Your task to perform on an android device: change timer sound Image 0: 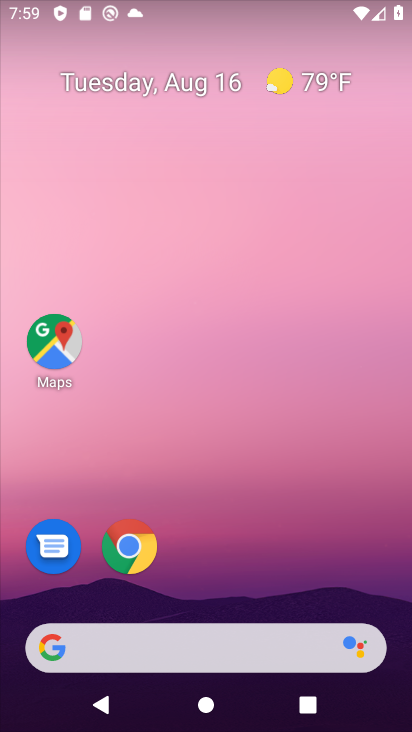
Step 0: drag from (208, 599) to (177, 1)
Your task to perform on an android device: change timer sound Image 1: 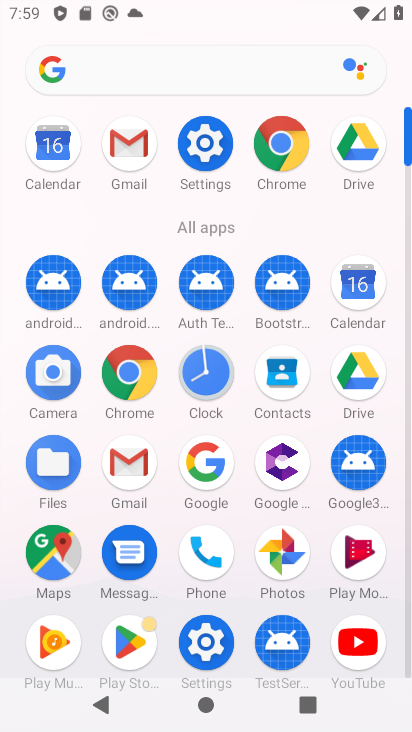
Step 1: click (201, 146)
Your task to perform on an android device: change timer sound Image 2: 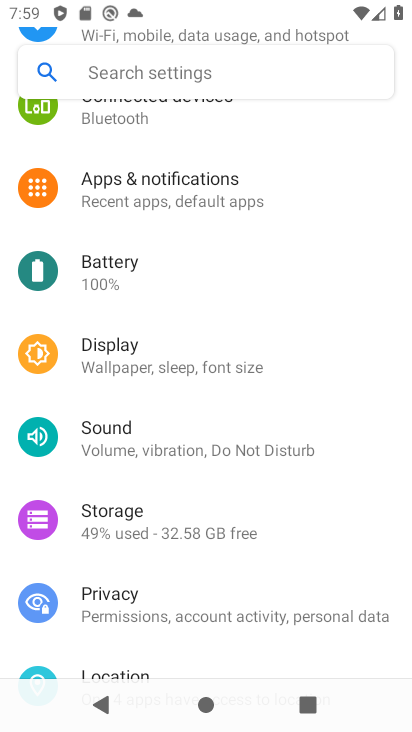
Step 2: press back button
Your task to perform on an android device: change timer sound Image 3: 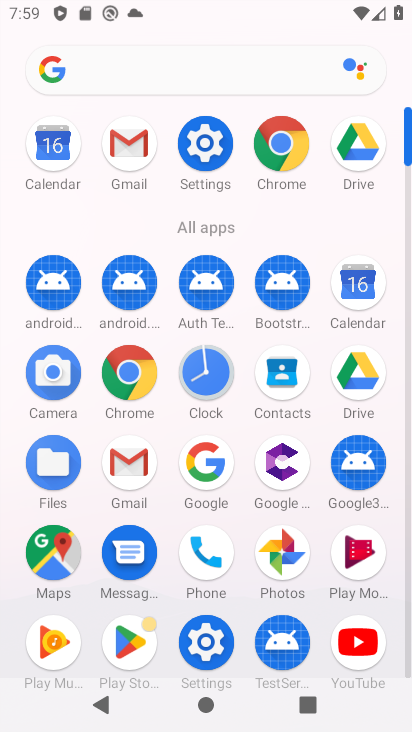
Step 3: click (202, 375)
Your task to perform on an android device: change timer sound Image 4: 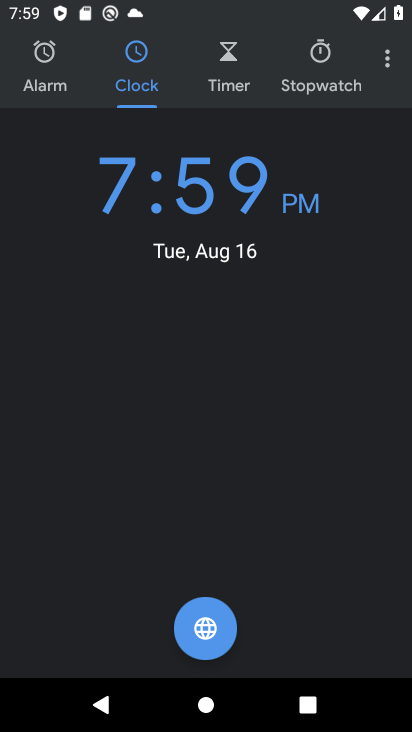
Step 4: click (390, 62)
Your task to perform on an android device: change timer sound Image 5: 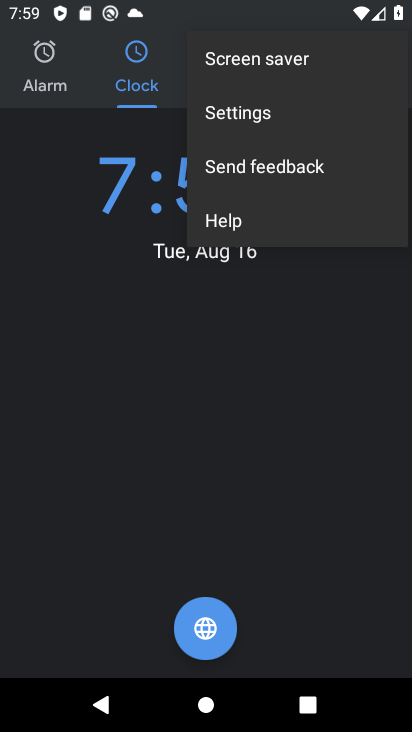
Step 5: click (249, 124)
Your task to perform on an android device: change timer sound Image 6: 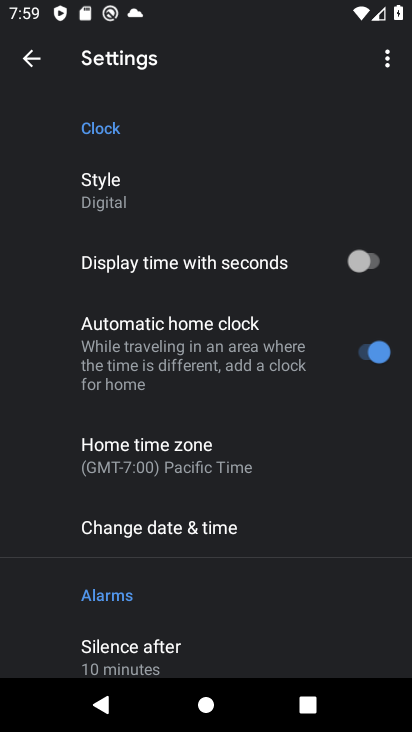
Step 6: drag from (216, 598) to (232, 64)
Your task to perform on an android device: change timer sound Image 7: 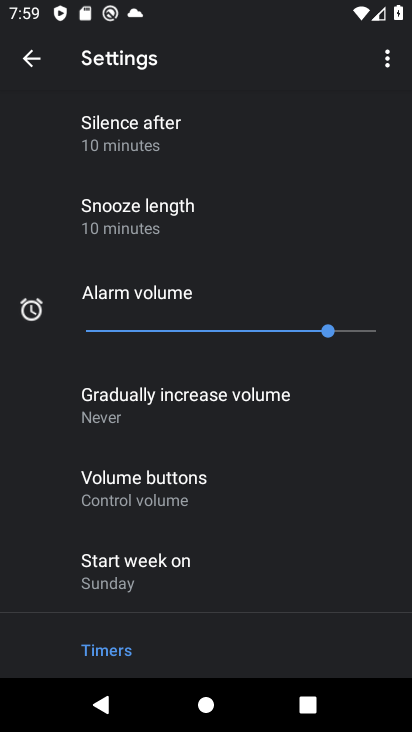
Step 7: drag from (154, 590) to (161, 181)
Your task to perform on an android device: change timer sound Image 8: 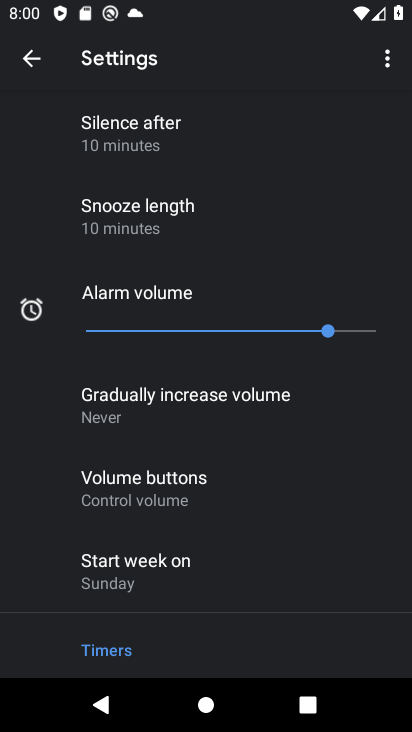
Step 8: drag from (173, 615) to (187, 300)
Your task to perform on an android device: change timer sound Image 9: 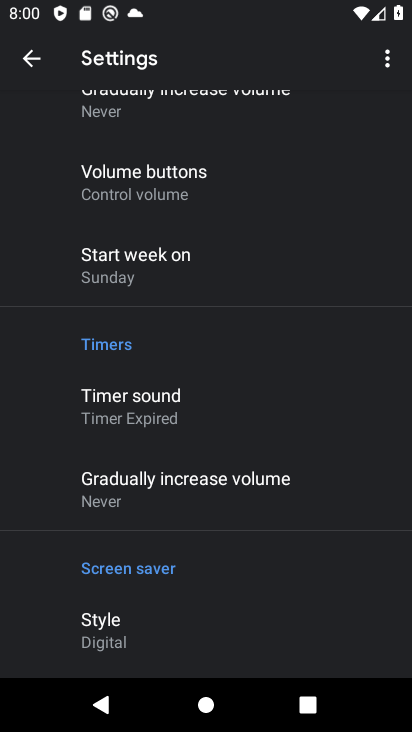
Step 9: click (138, 422)
Your task to perform on an android device: change timer sound Image 10: 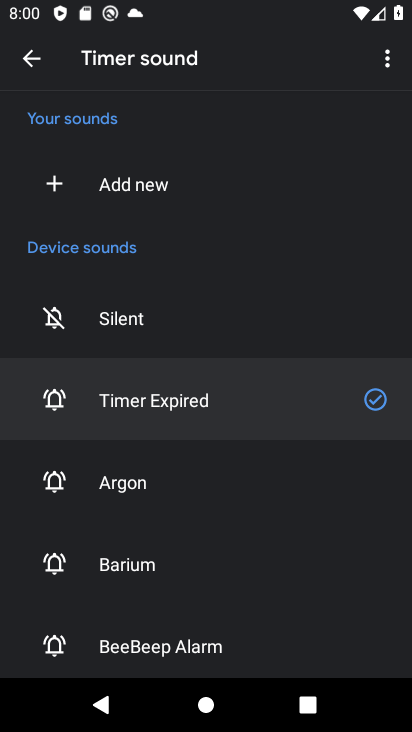
Step 10: click (75, 487)
Your task to perform on an android device: change timer sound Image 11: 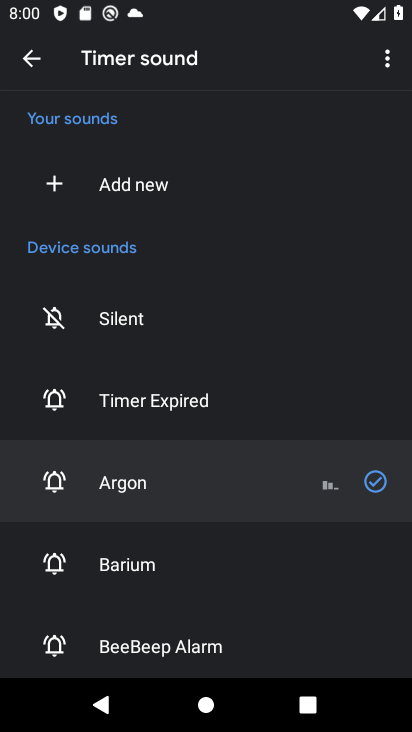
Step 11: task complete